Your task to perform on an android device: Search for sushi restaurants on Maps Image 0: 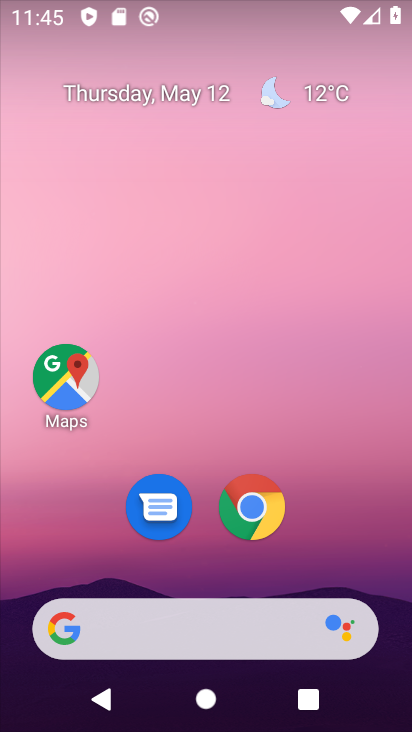
Step 0: click (62, 393)
Your task to perform on an android device: Search for sushi restaurants on Maps Image 1: 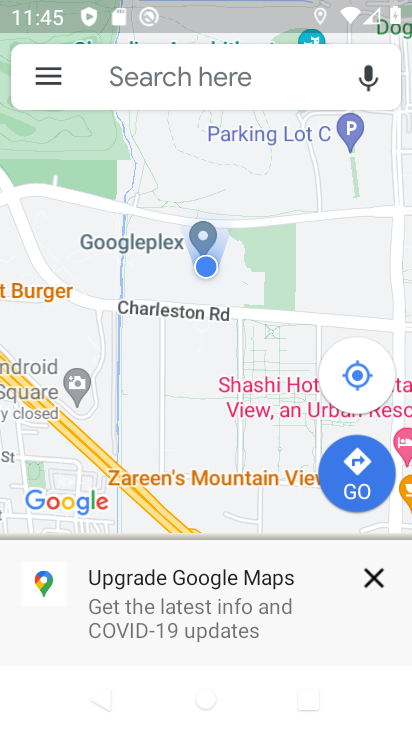
Step 1: click (199, 81)
Your task to perform on an android device: Search for sushi restaurants on Maps Image 2: 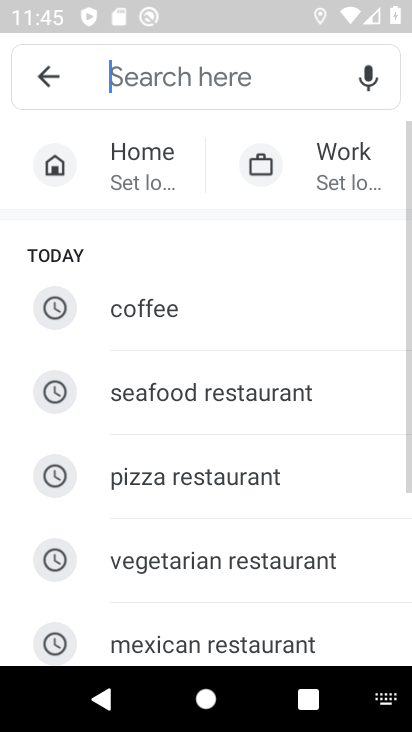
Step 2: drag from (254, 574) to (254, 326)
Your task to perform on an android device: Search for sushi restaurants on Maps Image 3: 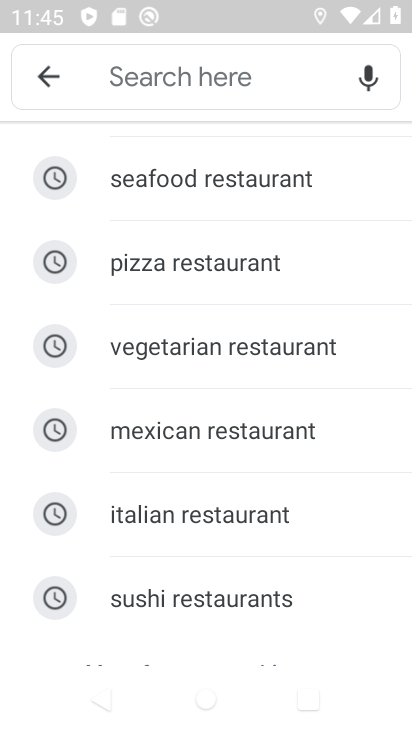
Step 3: click (230, 589)
Your task to perform on an android device: Search for sushi restaurants on Maps Image 4: 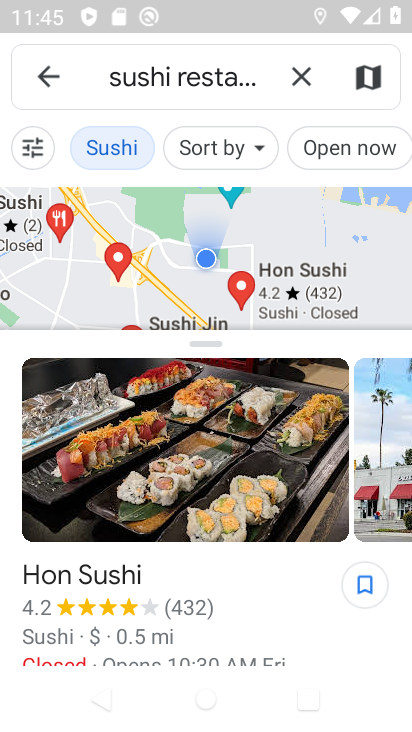
Step 4: task complete